Your task to perform on an android device: Set the phone to "Do not disturb". Image 0: 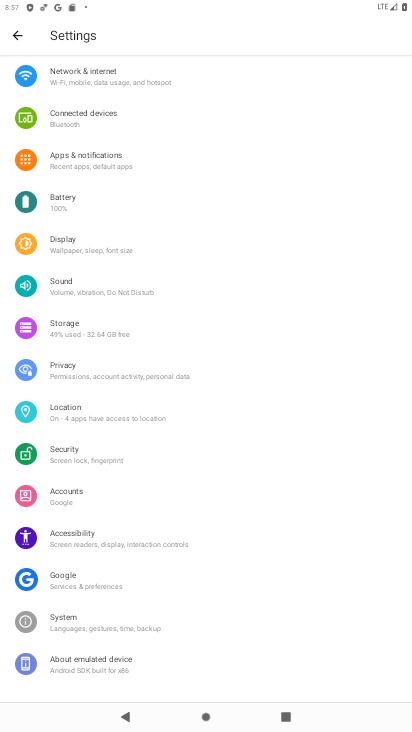
Step 0: press home button
Your task to perform on an android device: Set the phone to "Do not disturb". Image 1: 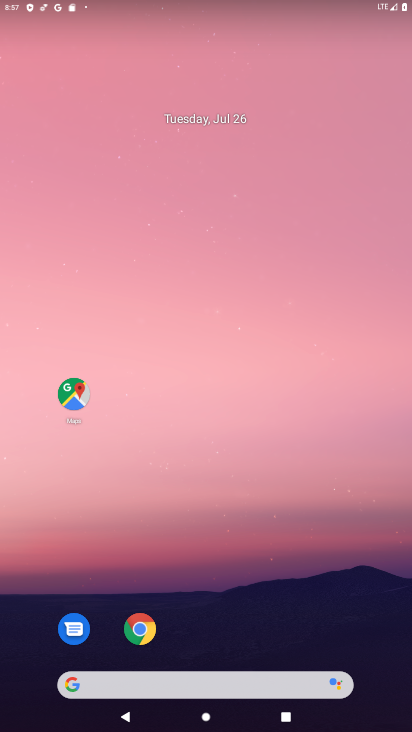
Step 1: drag from (356, 0) to (355, 320)
Your task to perform on an android device: Set the phone to "Do not disturb". Image 2: 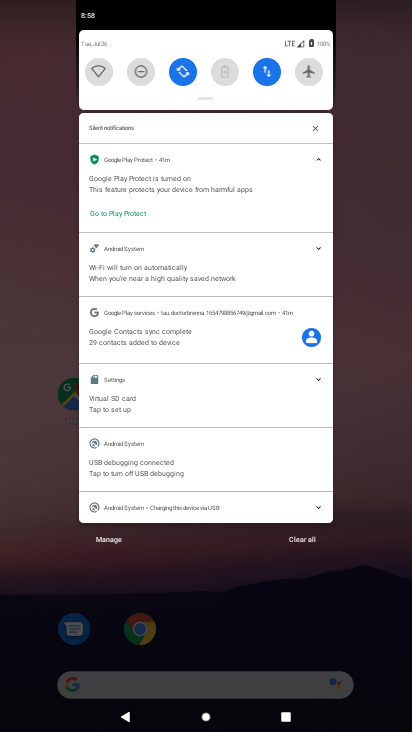
Step 2: click (144, 84)
Your task to perform on an android device: Set the phone to "Do not disturb". Image 3: 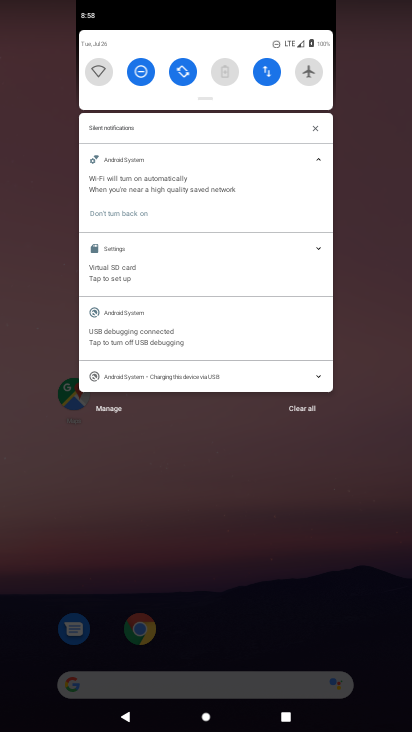
Step 3: task complete